Your task to perform on an android device: What's a good restaurant in San Francisco? Image 0: 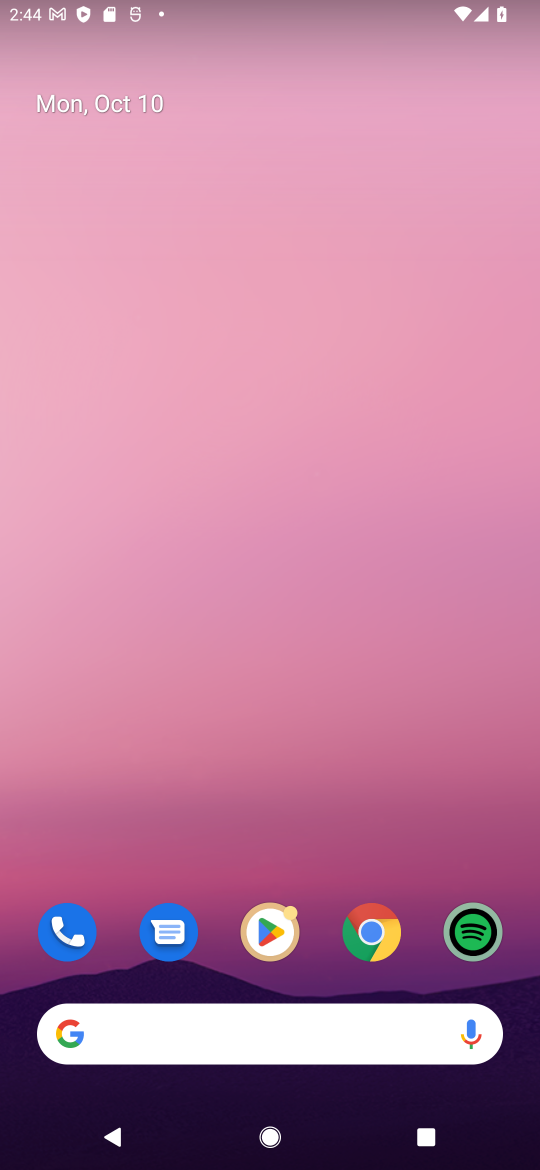
Step 0: press home button
Your task to perform on an android device: What's a good restaurant in San Francisco? Image 1: 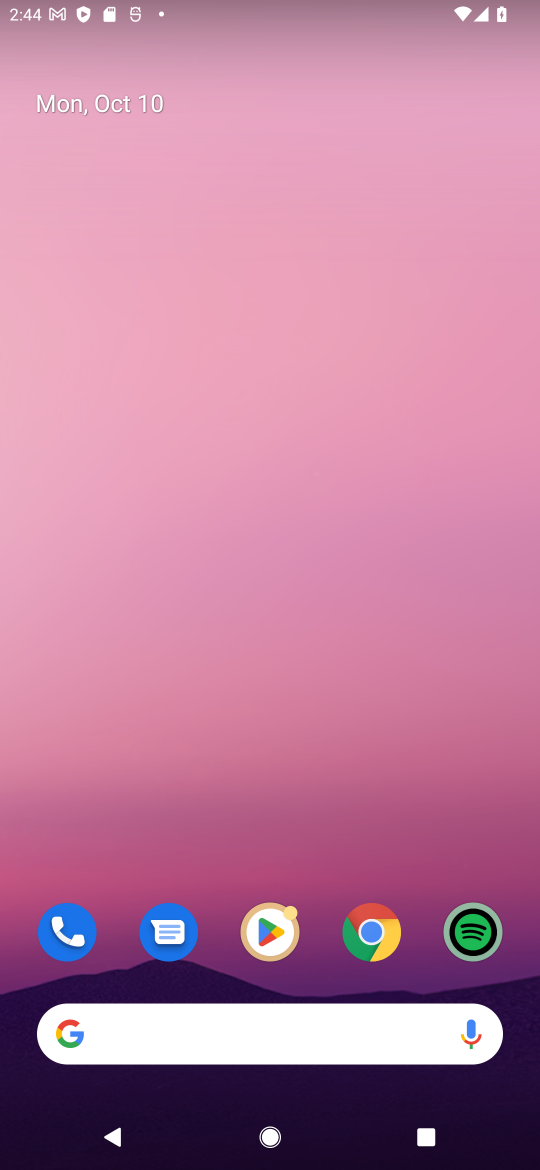
Step 1: click (287, 1047)
Your task to perform on an android device: What's a good restaurant in San Francisco? Image 2: 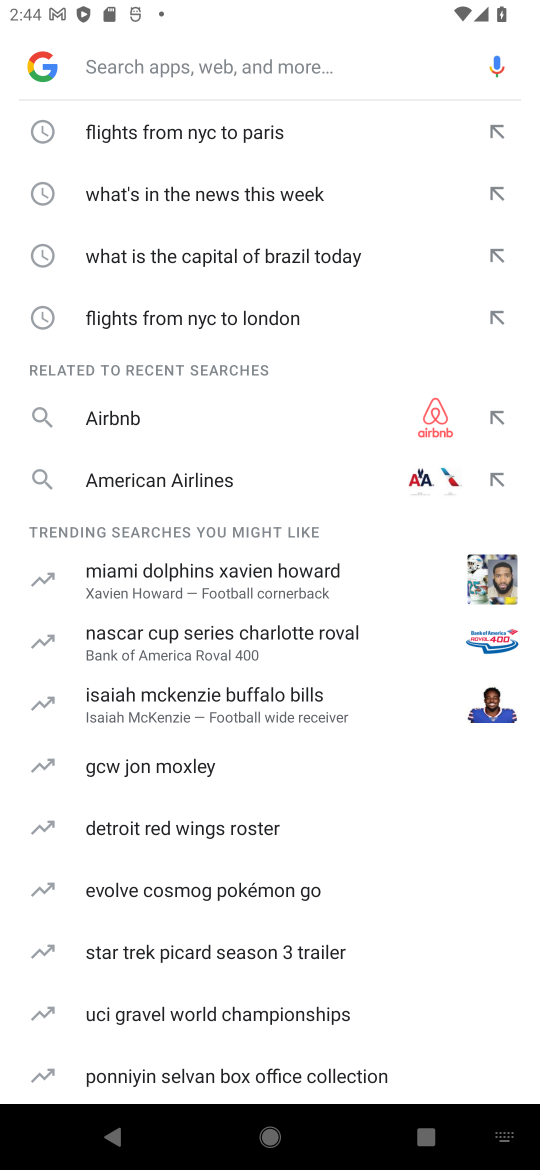
Step 2: type "What's a good restaurant in San Francisco"
Your task to perform on an android device: What's a good restaurant in San Francisco? Image 3: 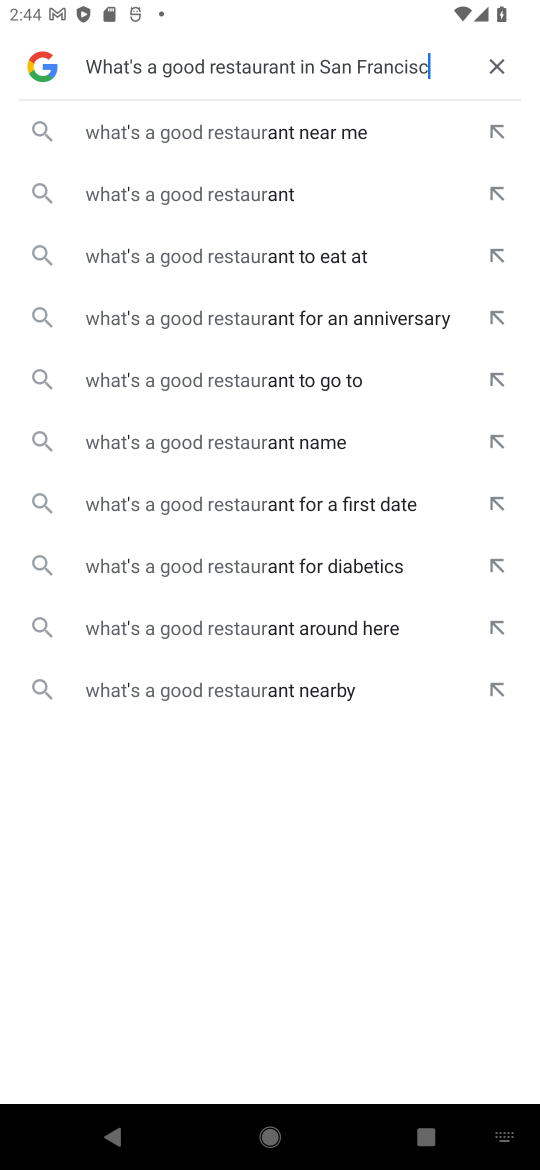
Step 3: press enter
Your task to perform on an android device: What's a good restaurant in San Francisco? Image 4: 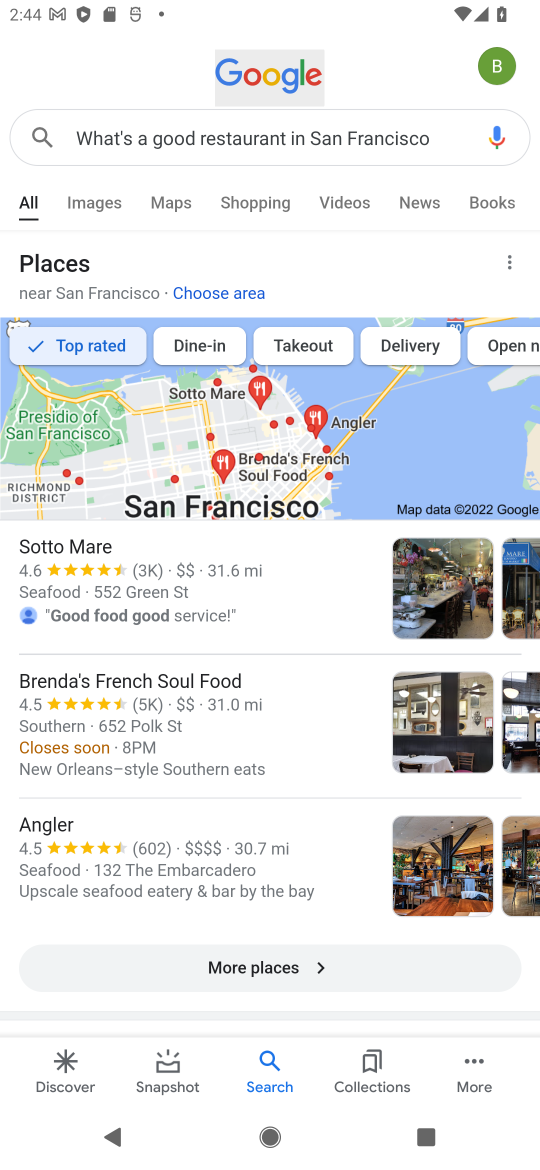
Step 4: click (268, 971)
Your task to perform on an android device: What's a good restaurant in San Francisco? Image 5: 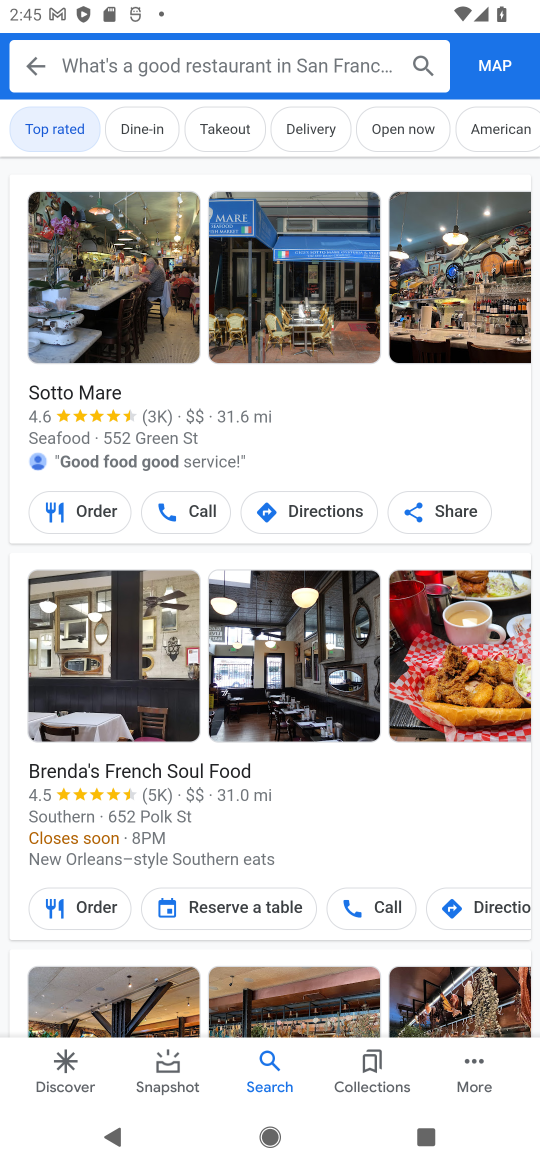
Step 5: task complete